Your task to perform on an android device: Open Google Chrome Image 0: 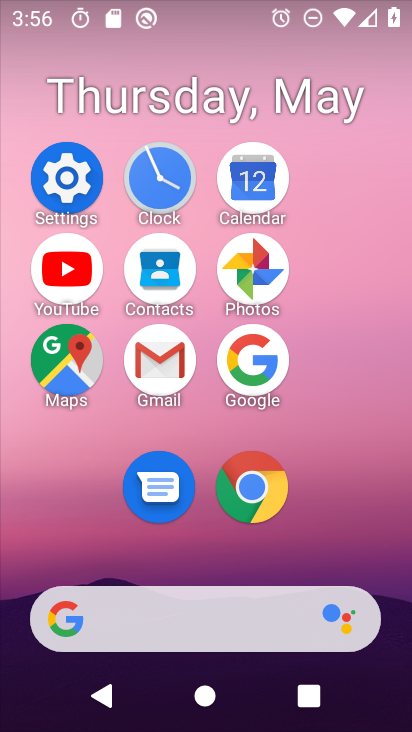
Step 0: click (264, 468)
Your task to perform on an android device: Open Google Chrome Image 1: 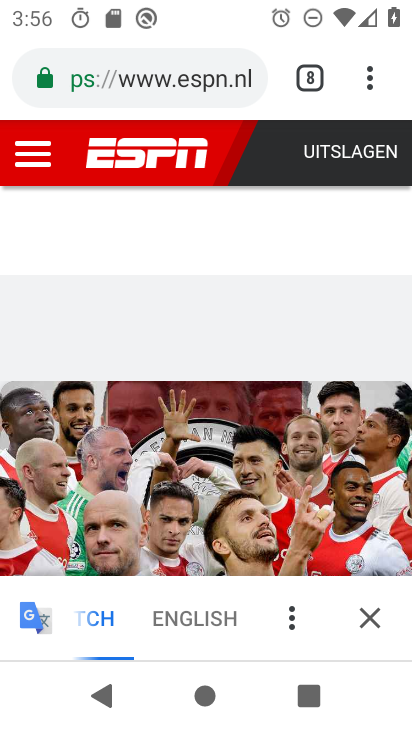
Step 1: task complete